Your task to perform on an android device: toggle translation in the chrome app Image 0: 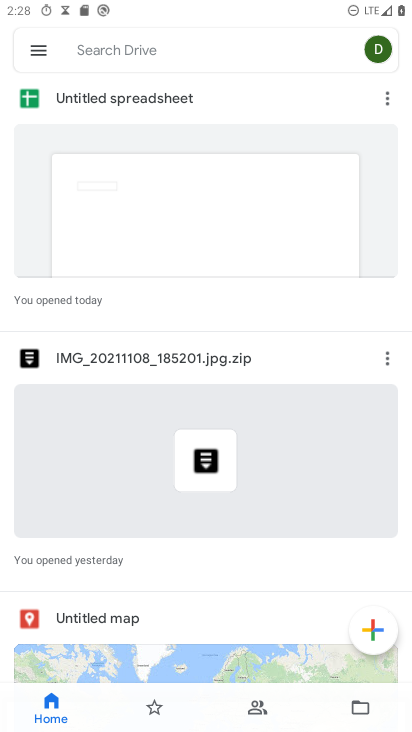
Step 0: press home button
Your task to perform on an android device: toggle translation in the chrome app Image 1: 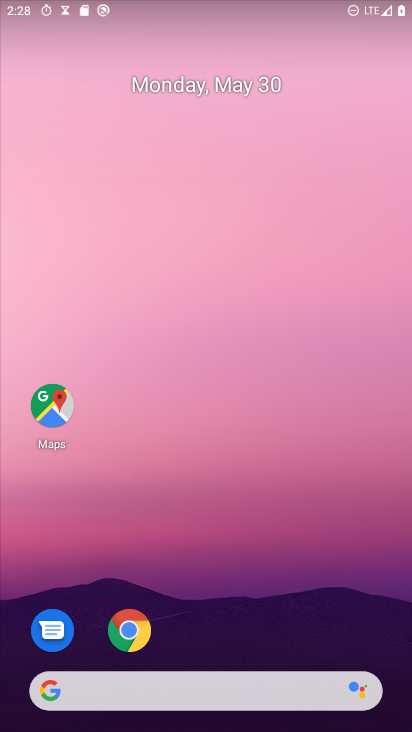
Step 1: drag from (264, 694) to (232, 80)
Your task to perform on an android device: toggle translation in the chrome app Image 2: 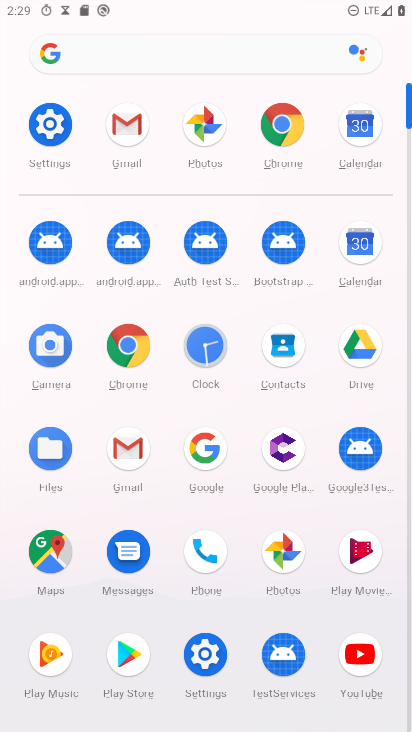
Step 2: click (288, 150)
Your task to perform on an android device: toggle translation in the chrome app Image 3: 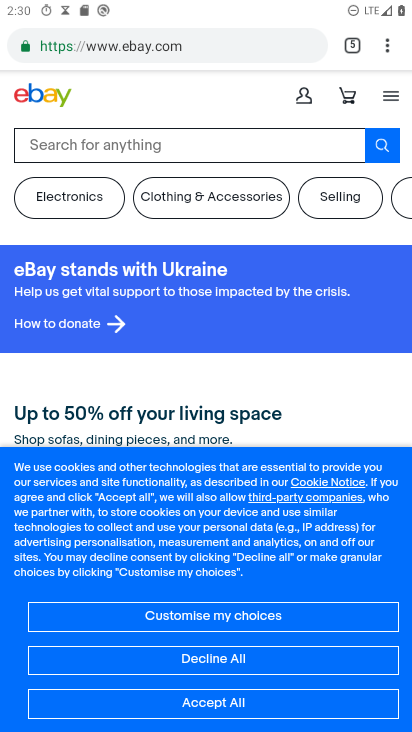
Step 3: click (383, 60)
Your task to perform on an android device: toggle translation in the chrome app Image 4: 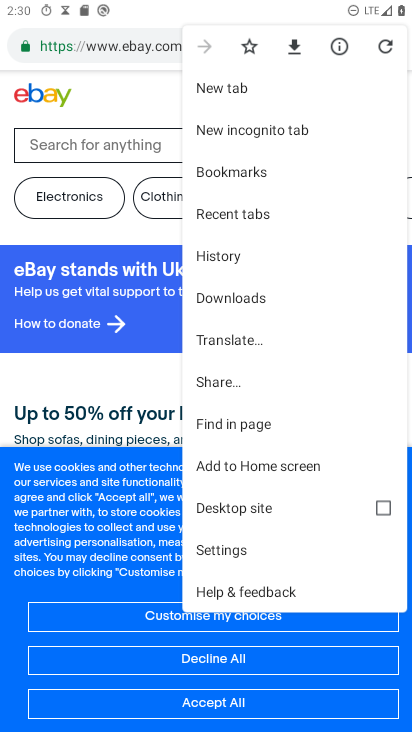
Step 4: click (258, 540)
Your task to perform on an android device: toggle translation in the chrome app Image 5: 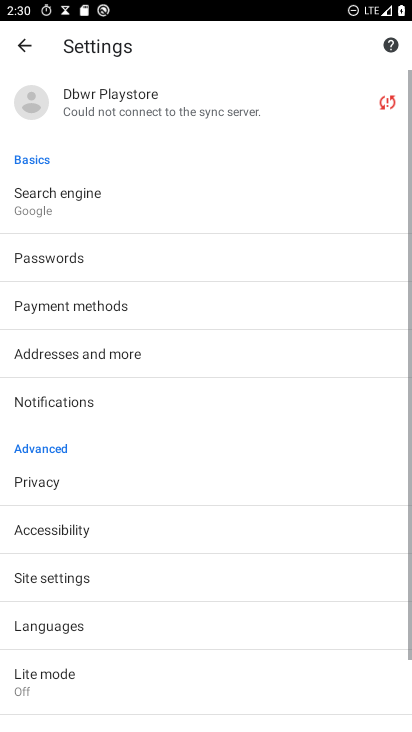
Step 5: drag from (263, 677) to (199, 177)
Your task to perform on an android device: toggle translation in the chrome app Image 6: 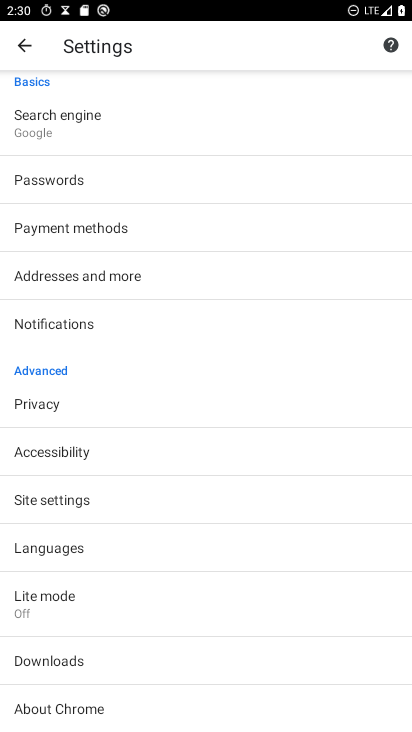
Step 6: click (77, 543)
Your task to perform on an android device: toggle translation in the chrome app Image 7: 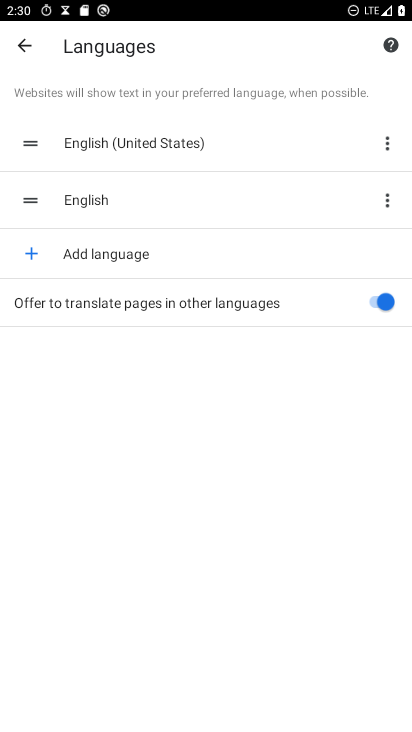
Step 7: task complete